Your task to perform on an android device: Go to network settings Image 0: 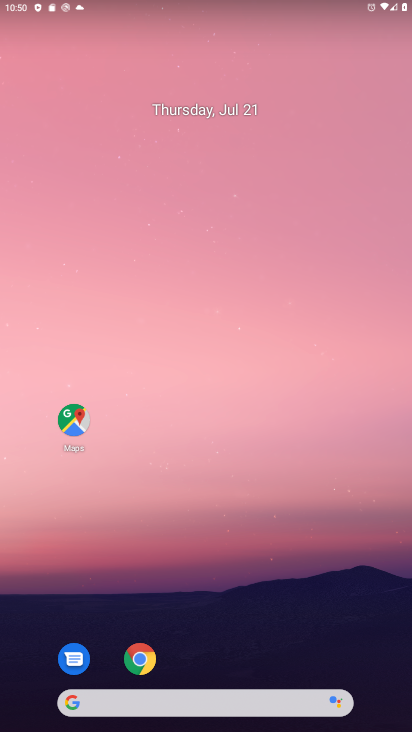
Step 0: drag from (260, 672) to (226, 6)
Your task to perform on an android device: Go to network settings Image 1: 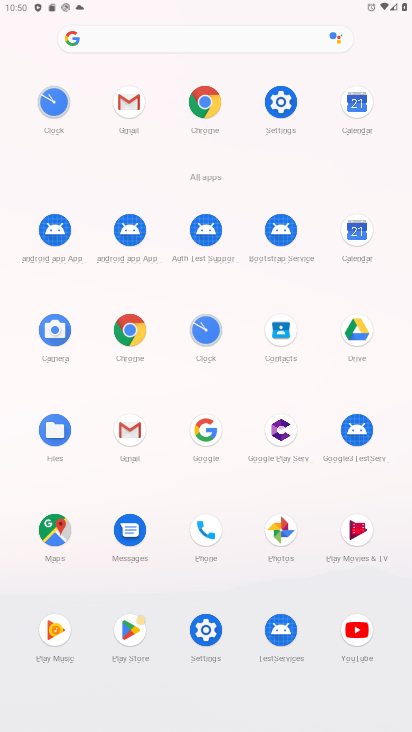
Step 1: click (197, 639)
Your task to perform on an android device: Go to network settings Image 2: 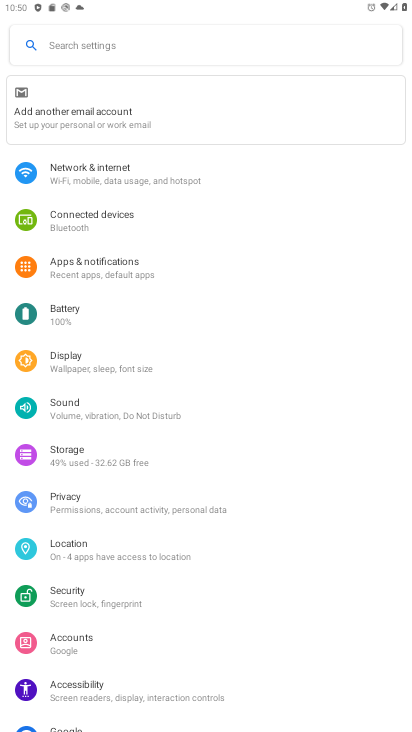
Step 2: click (64, 168)
Your task to perform on an android device: Go to network settings Image 3: 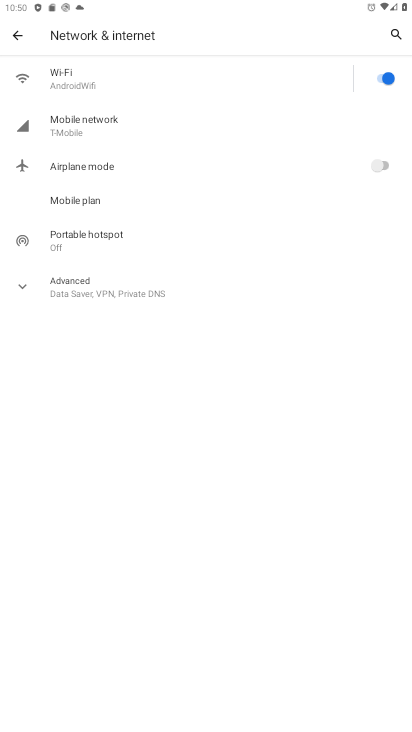
Step 3: task complete